Your task to perform on an android device: Open Chrome and go to settings Image 0: 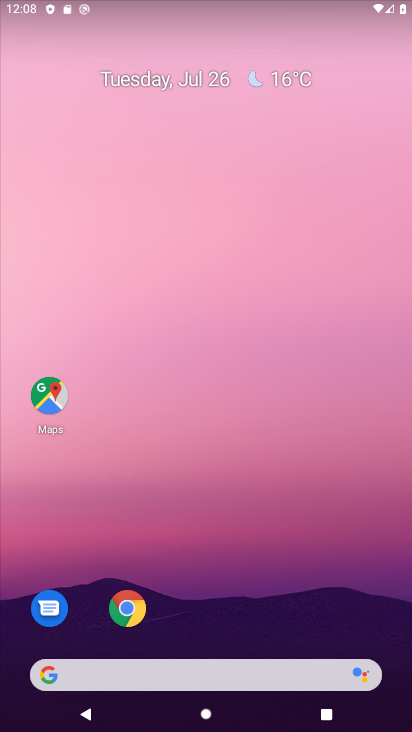
Step 0: click (135, 594)
Your task to perform on an android device: Open Chrome and go to settings Image 1: 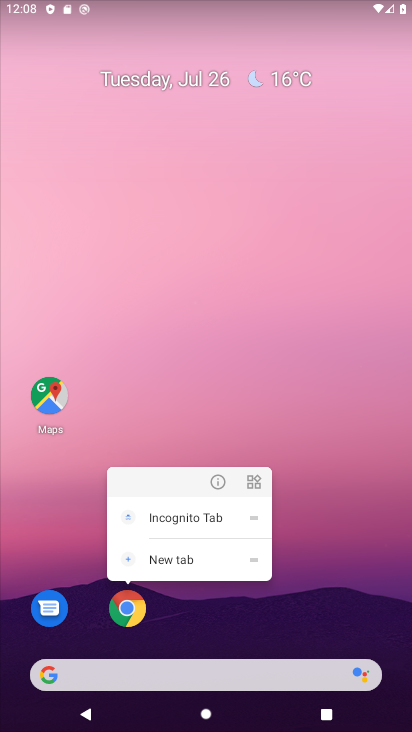
Step 1: click (140, 614)
Your task to perform on an android device: Open Chrome and go to settings Image 2: 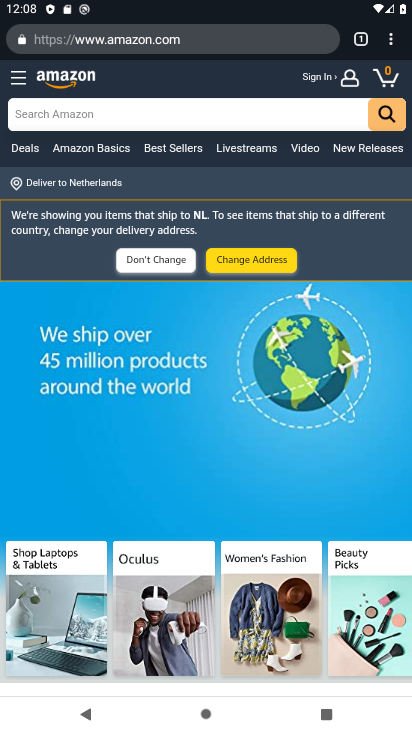
Step 2: click (390, 48)
Your task to perform on an android device: Open Chrome and go to settings Image 3: 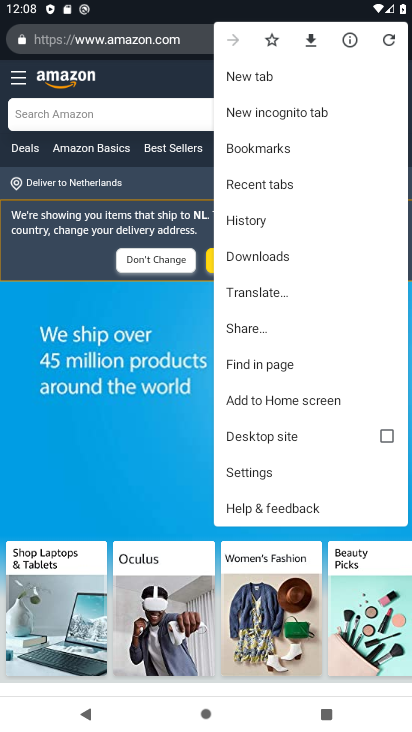
Step 3: click (280, 470)
Your task to perform on an android device: Open Chrome and go to settings Image 4: 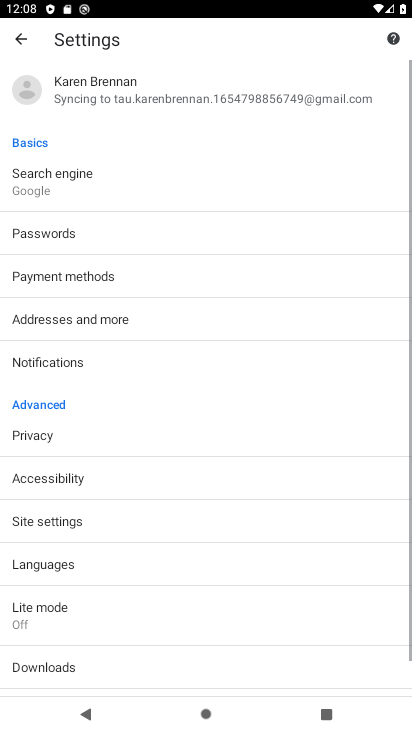
Step 4: task complete